Your task to perform on an android device: What's the weather going to be this weekend? Image 0: 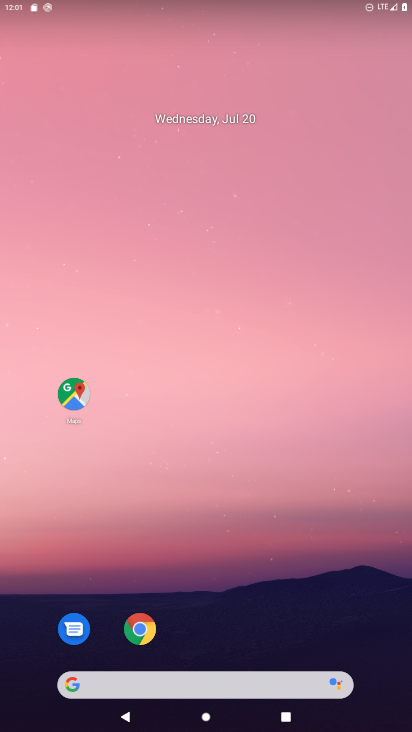
Step 0: drag from (203, 642) to (213, 66)
Your task to perform on an android device: What's the weather going to be this weekend? Image 1: 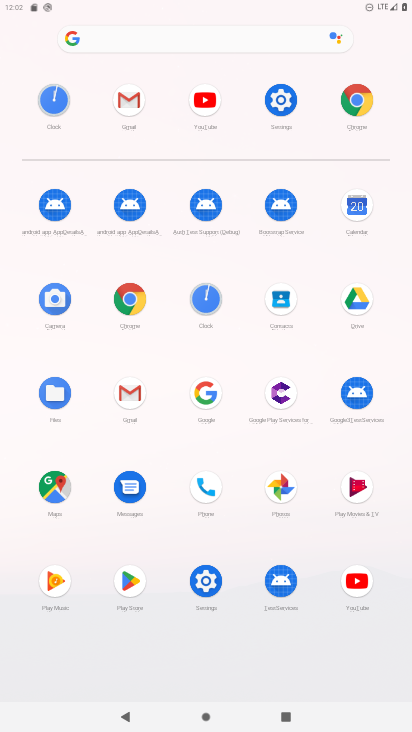
Step 1: click (208, 400)
Your task to perform on an android device: What's the weather going to be this weekend? Image 2: 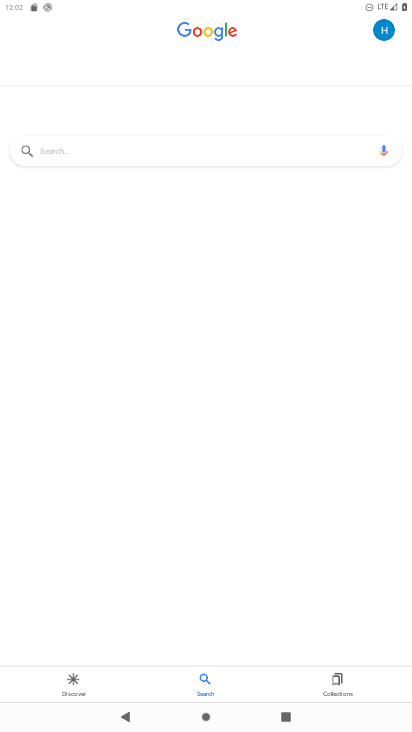
Step 2: click (76, 145)
Your task to perform on an android device: What's the weather going to be this weekend? Image 3: 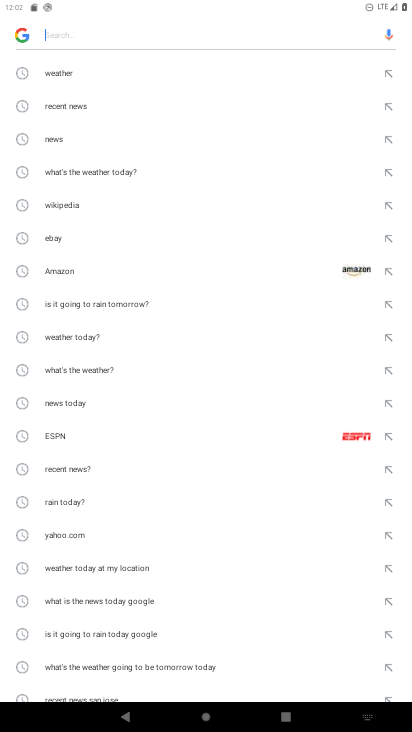
Step 3: click (74, 70)
Your task to perform on an android device: What's the weather going to be this weekend? Image 4: 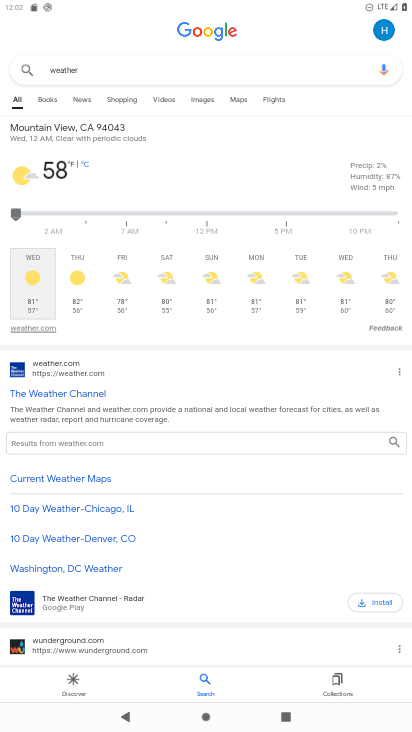
Step 4: click (23, 326)
Your task to perform on an android device: What's the weather going to be this weekend? Image 5: 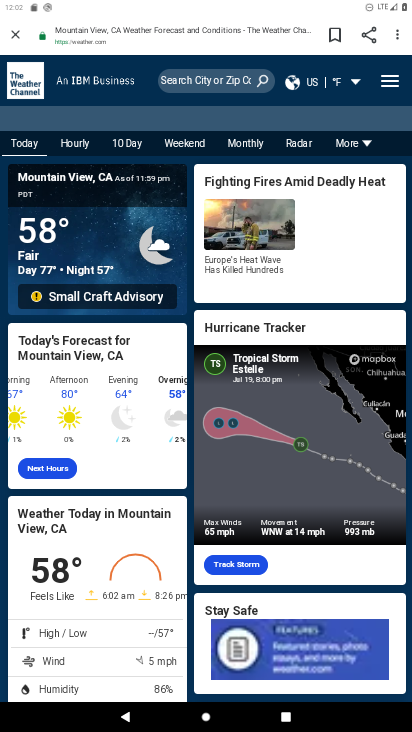
Step 5: click (180, 141)
Your task to perform on an android device: What's the weather going to be this weekend? Image 6: 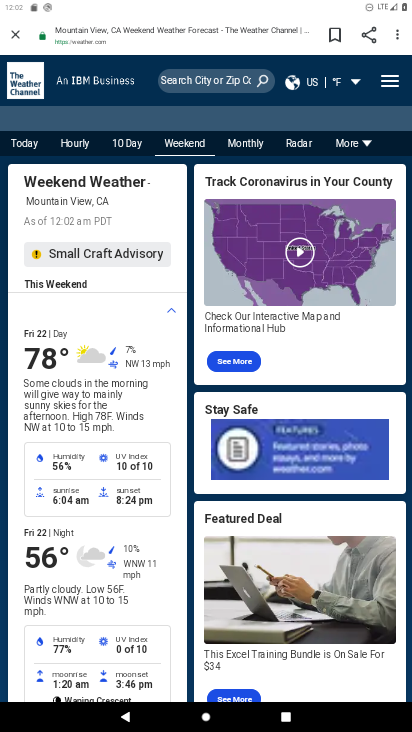
Step 6: task complete